Your task to perform on an android device: turn on airplane mode Image 0: 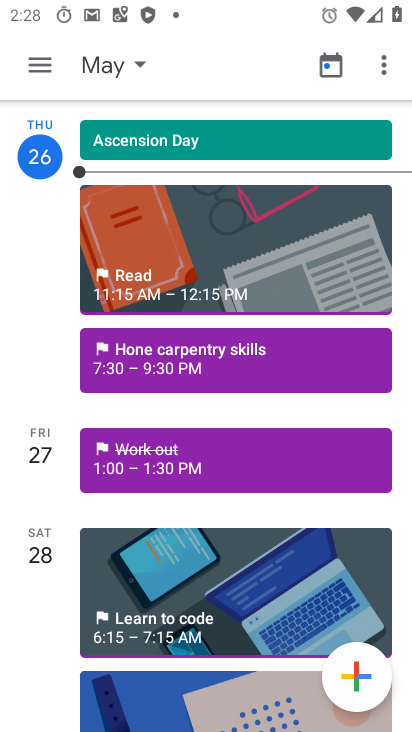
Step 0: press home button
Your task to perform on an android device: turn on airplane mode Image 1: 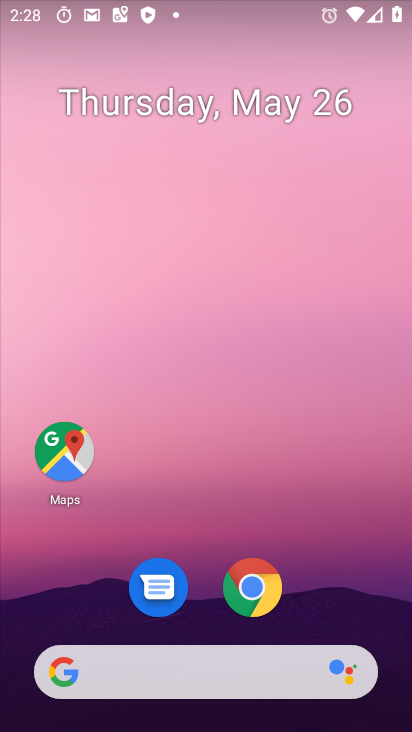
Step 1: drag from (213, 629) to (195, 146)
Your task to perform on an android device: turn on airplane mode Image 2: 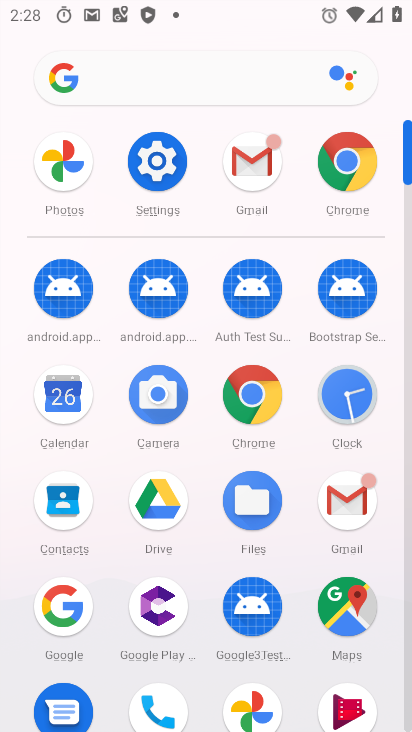
Step 2: click (160, 181)
Your task to perform on an android device: turn on airplane mode Image 3: 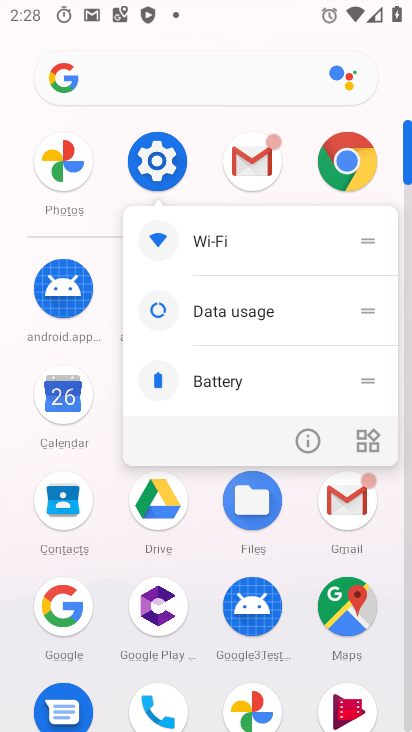
Step 3: click (154, 162)
Your task to perform on an android device: turn on airplane mode Image 4: 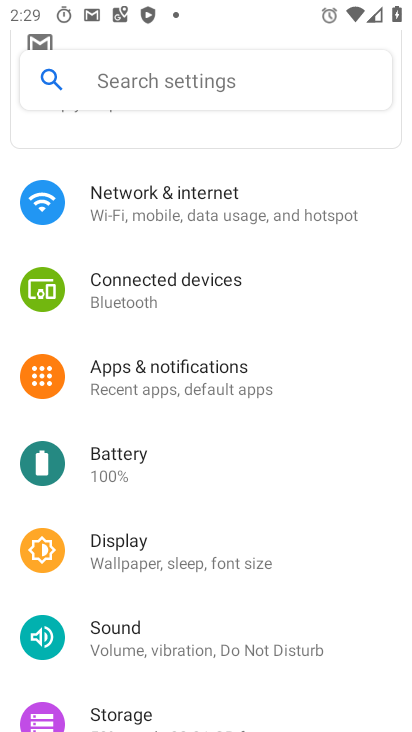
Step 4: click (199, 213)
Your task to perform on an android device: turn on airplane mode Image 5: 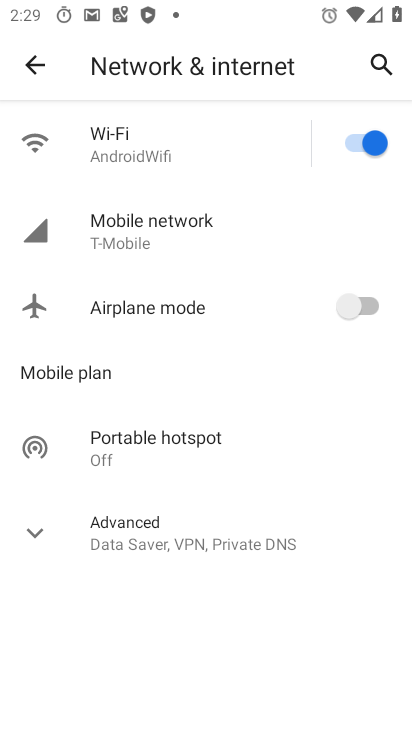
Step 5: click (367, 282)
Your task to perform on an android device: turn on airplane mode Image 6: 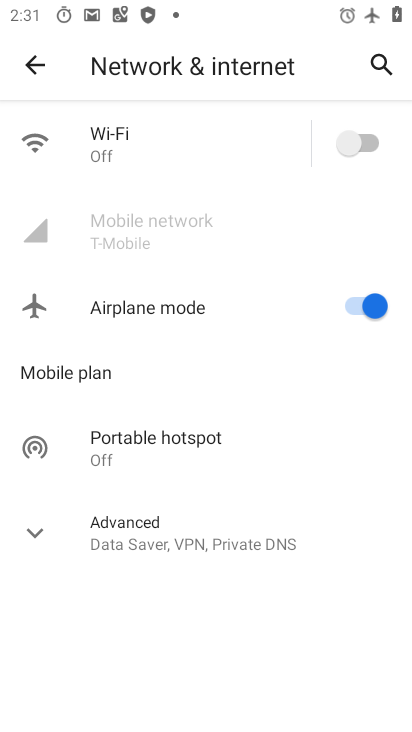
Step 6: task complete